Your task to perform on an android device: What's the weather going to be this weekend? Image 0: 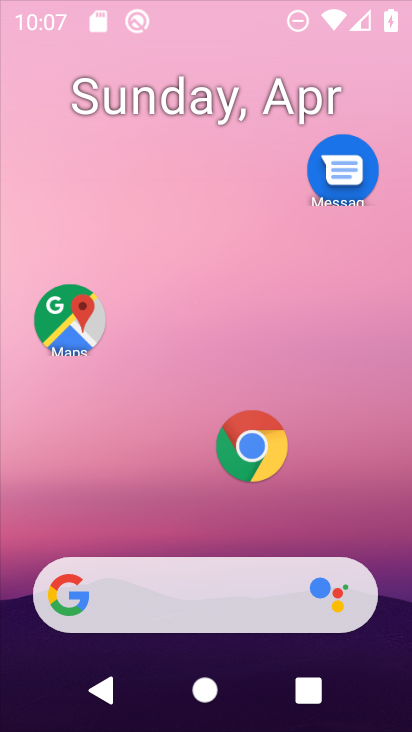
Step 0: click (223, 170)
Your task to perform on an android device: What's the weather going to be this weekend? Image 1: 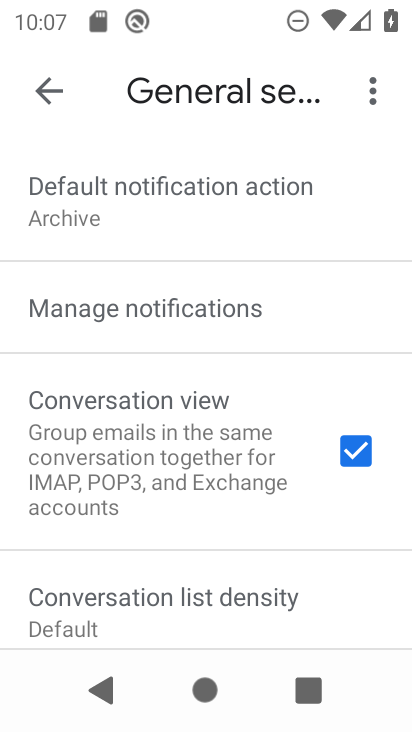
Step 1: drag from (185, 573) to (277, 266)
Your task to perform on an android device: What's the weather going to be this weekend? Image 2: 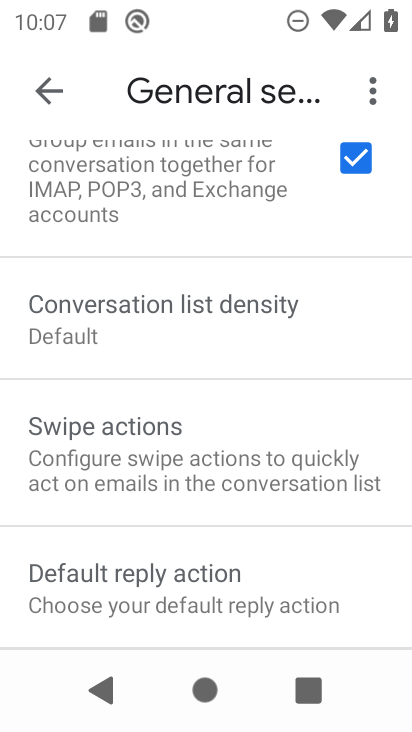
Step 2: drag from (138, 367) to (270, 709)
Your task to perform on an android device: What's the weather going to be this weekend? Image 3: 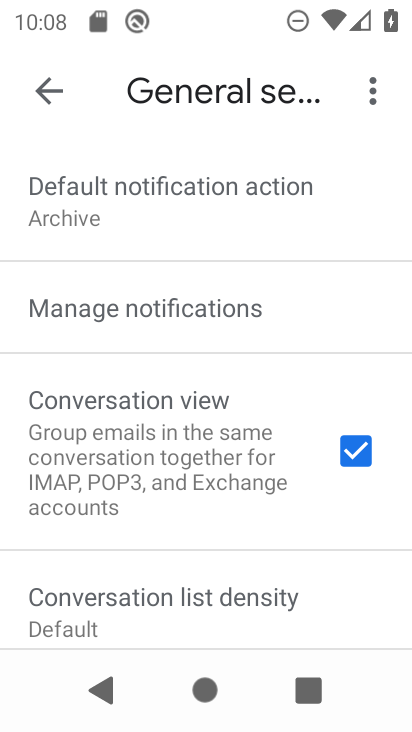
Step 3: press home button
Your task to perform on an android device: What's the weather going to be this weekend? Image 4: 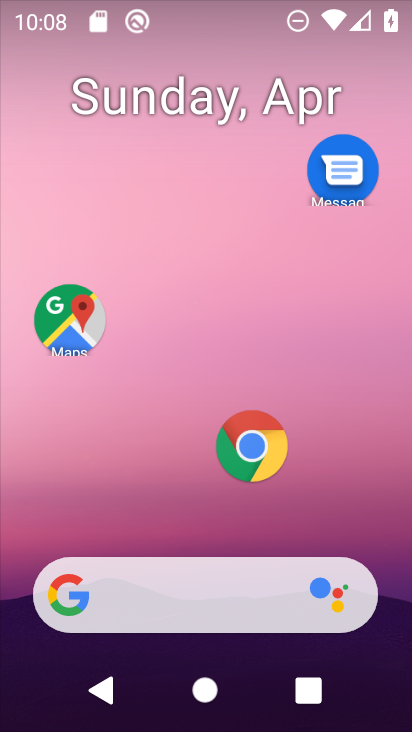
Step 4: drag from (180, 525) to (164, 166)
Your task to perform on an android device: What's the weather going to be this weekend? Image 5: 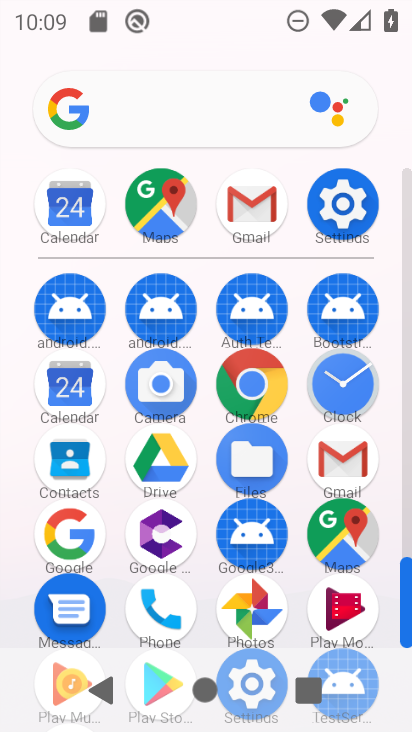
Step 5: drag from (202, 578) to (186, 196)
Your task to perform on an android device: What's the weather going to be this weekend? Image 6: 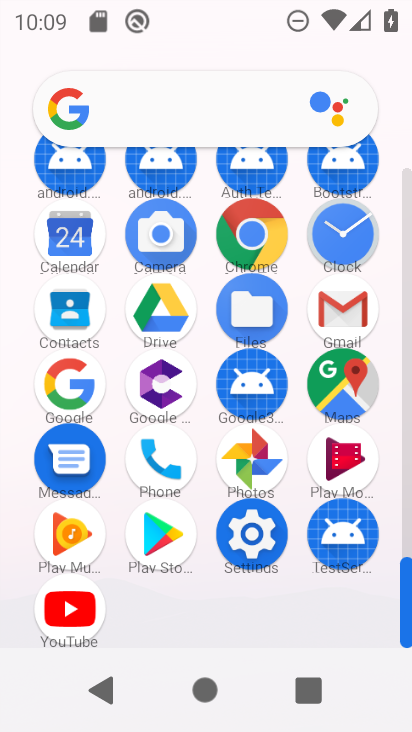
Step 6: click (71, 380)
Your task to perform on an android device: What's the weather going to be this weekend? Image 7: 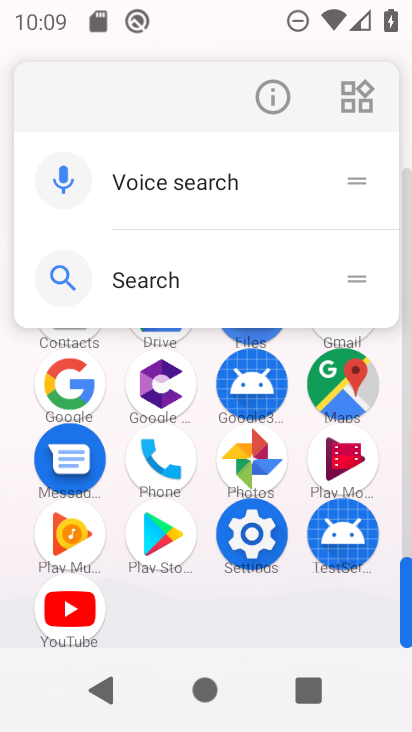
Step 7: click (251, 98)
Your task to perform on an android device: What's the weather going to be this weekend? Image 8: 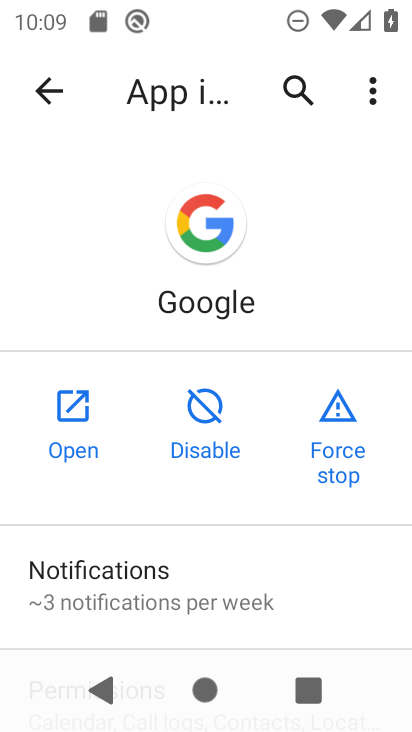
Step 8: click (73, 412)
Your task to perform on an android device: What's the weather going to be this weekend? Image 9: 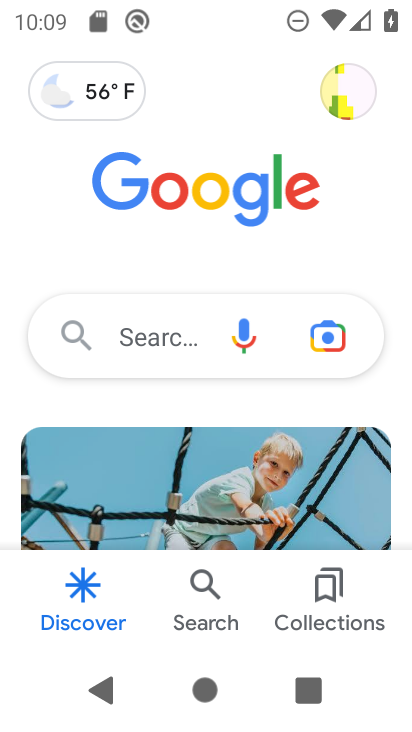
Step 9: click (164, 342)
Your task to perform on an android device: What's the weather going to be this weekend? Image 10: 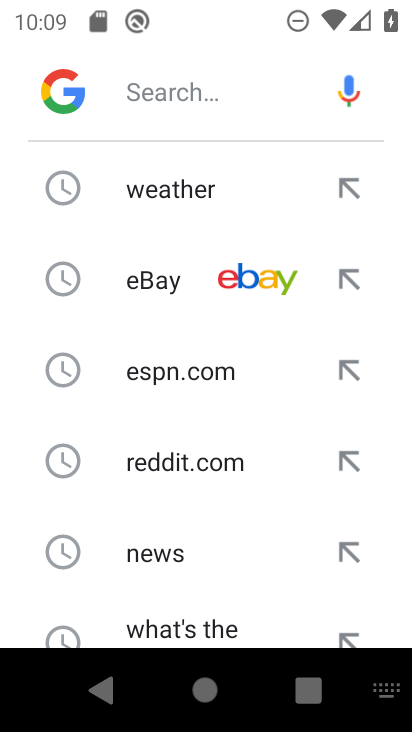
Step 10: drag from (221, 598) to (241, 156)
Your task to perform on an android device: What's the weather going to be this weekend? Image 11: 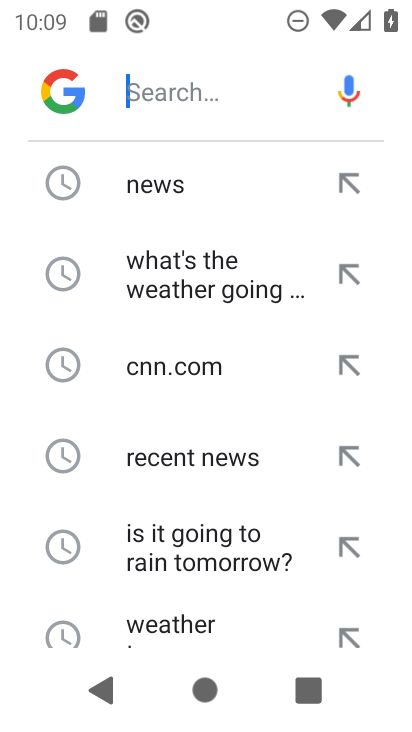
Step 11: drag from (228, 586) to (251, 176)
Your task to perform on an android device: What's the weather going to be this weekend? Image 12: 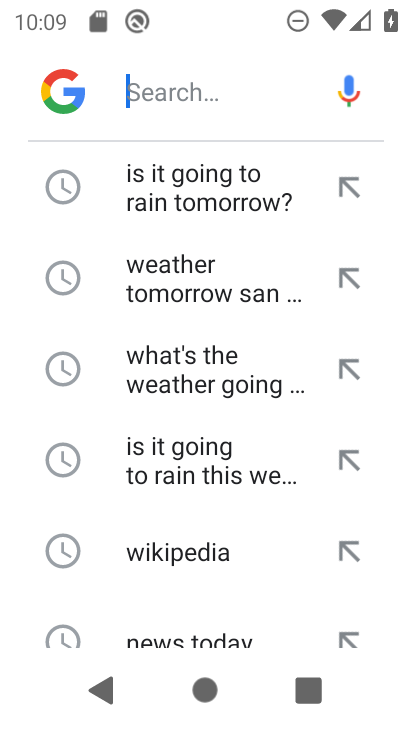
Step 12: drag from (211, 488) to (266, 49)
Your task to perform on an android device: What's the weather going to be this weekend? Image 13: 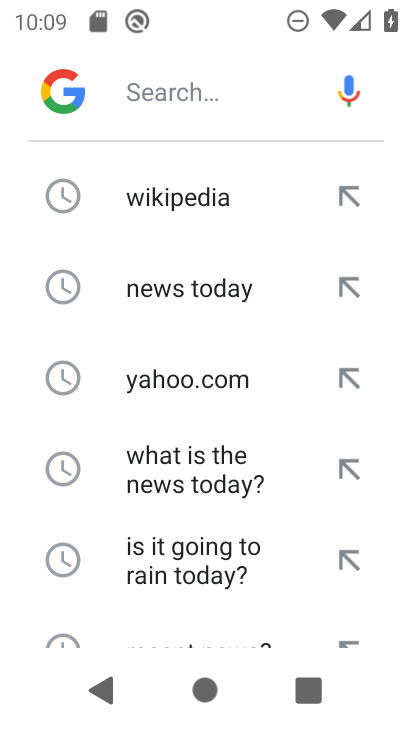
Step 13: drag from (232, 576) to (274, 107)
Your task to perform on an android device: What's the weather going to be this weekend? Image 14: 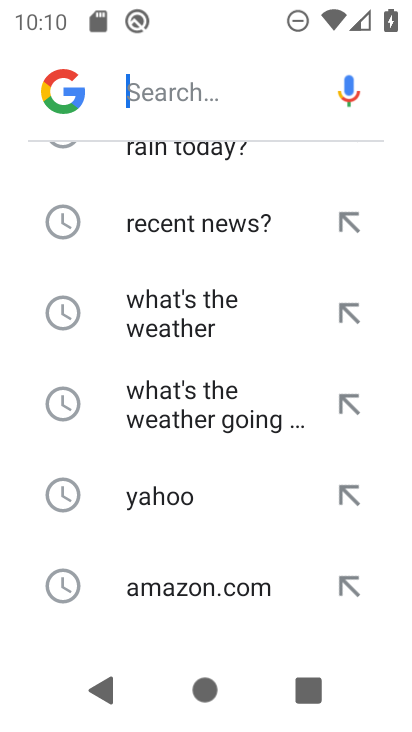
Step 14: click (212, 408)
Your task to perform on an android device: What's the weather going to be this weekend? Image 15: 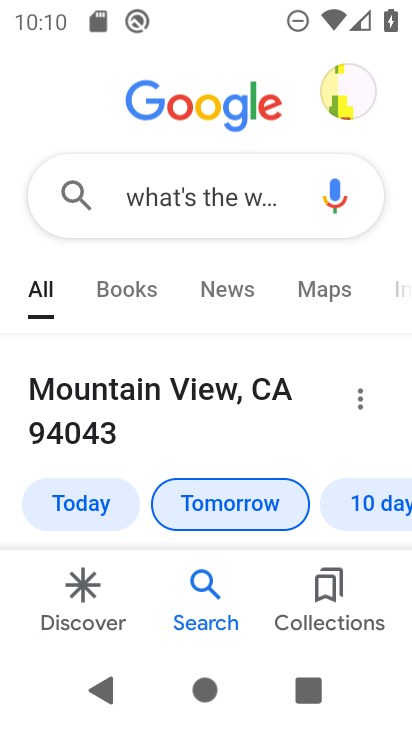
Step 15: task complete